Your task to perform on an android device: Show me productivity apps on the Play Store Image 0: 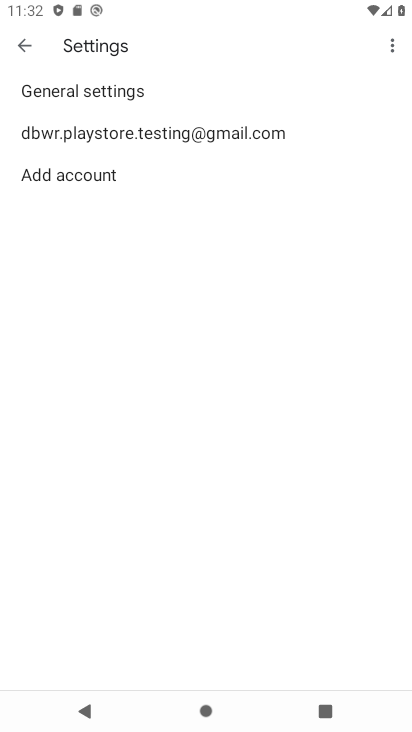
Step 0: press home button
Your task to perform on an android device: Show me productivity apps on the Play Store Image 1: 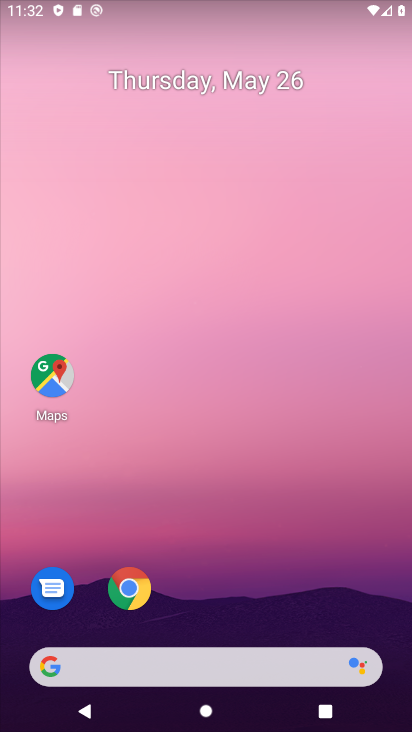
Step 1: drag from (218, 637) to (317, 27)
Your task to perform on an android device: Show me productivity apps on the Play Store Image 2: 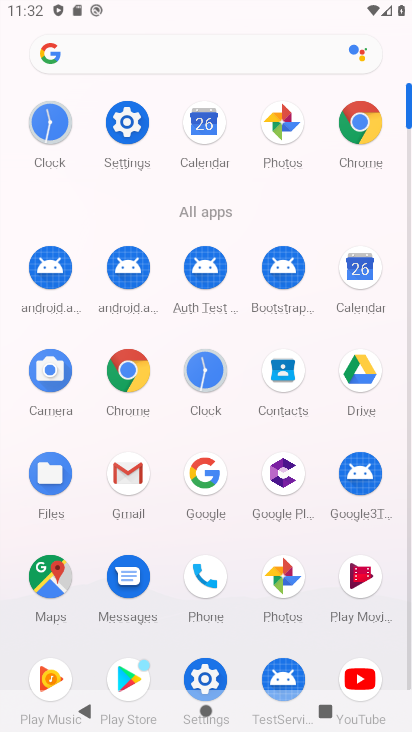
Step 2: click (128, 670)
Your task to perform on an android device: Show me productivity apps on the Play Store Image 3: 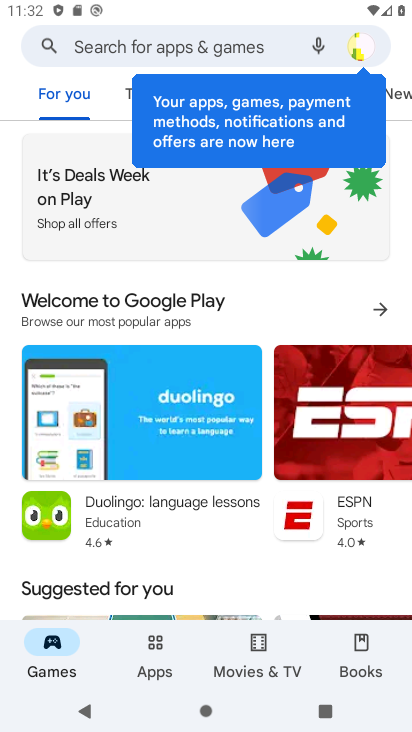
Step 3: click (146, 653)
Your task to perform on an android device: Show me productivity apps on the Play Store Image 4: 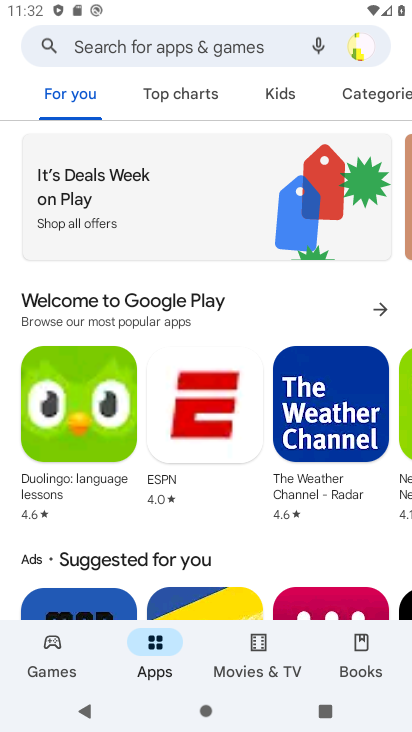
Step 4: click (376, 97)
Your task to perform on an android device: Show me productivity apps on the Play Store Image 5: 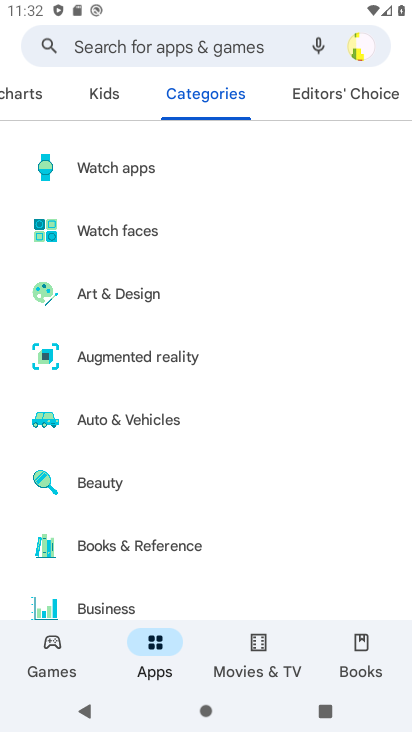
Step 5: drag from (208, 558) to (288, 0)
Your task to perform on an android device: Show me productivity apps on the Play Store Image 6: 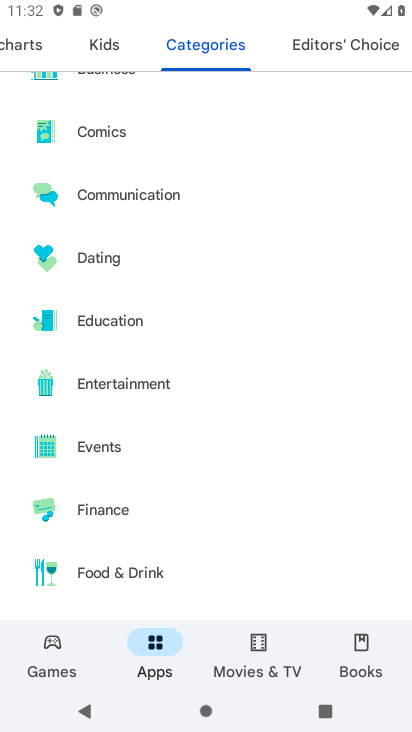
Step 6: drag from (169, 553) to (149, 9)
Your task to perform on an android device: Show me productivity apps on the Play Store Image 7: 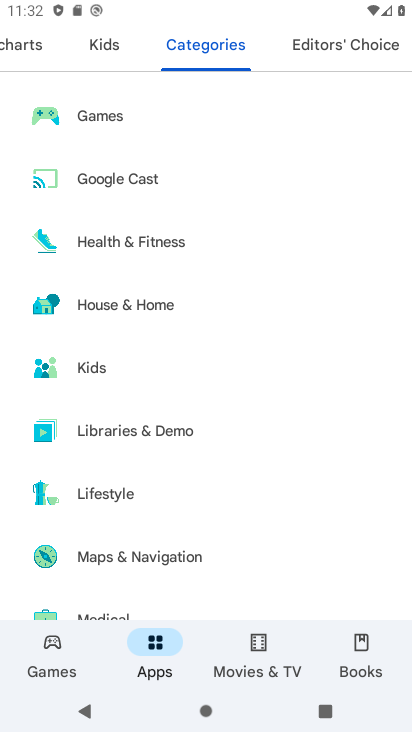
Step 7: drag from (161, 562) to (189, 117)
Your task to perform on an android device: Show me productivity apps on the Play Store Image 8: 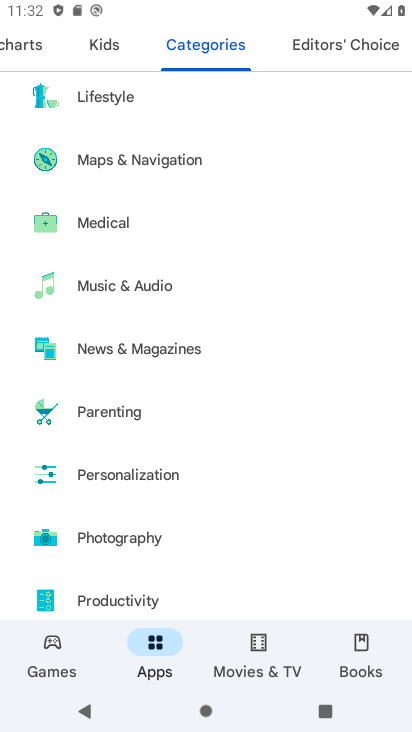
Step 8: click (126, 594)
Your task to perform on an android device: Show me productivity apps on the Play Store Image 9: 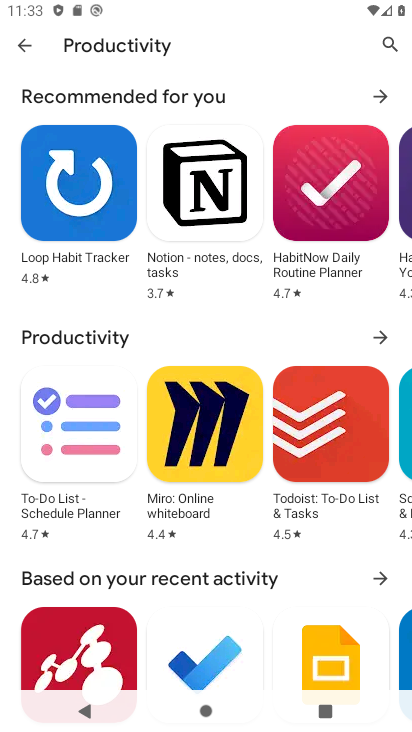
Step 9: task complete